Your task to perform on an android device: see sites visited before in the chrome app Image 0: 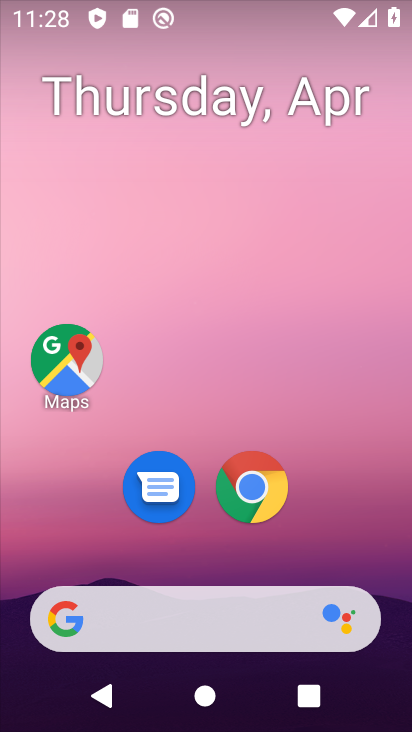
Step 0: click (341, 302)
Your task to perform on an android device: see sites visited before in the chrome app Image 1: 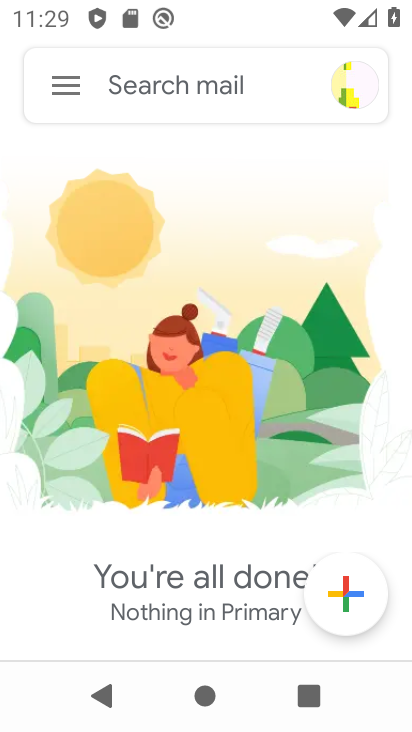
Step 1: press home button
Your task to perform on an android device: see sites visited before in the chrome app Image 2: 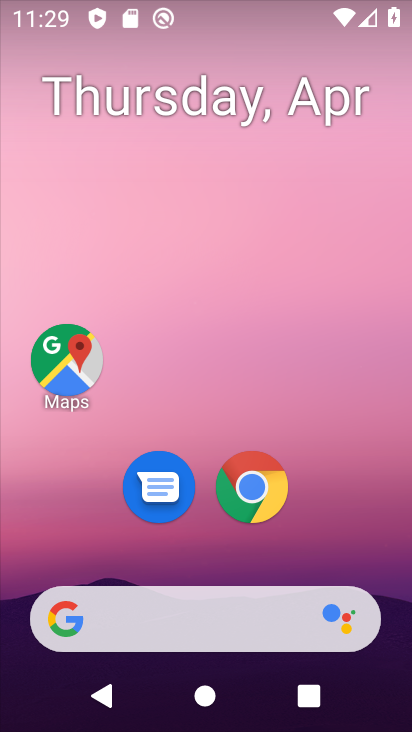
Step 2: drag from (339, 569) to (322, 140)
Your task to perform on an android device: see sites visited before in the chrome app Image 3: 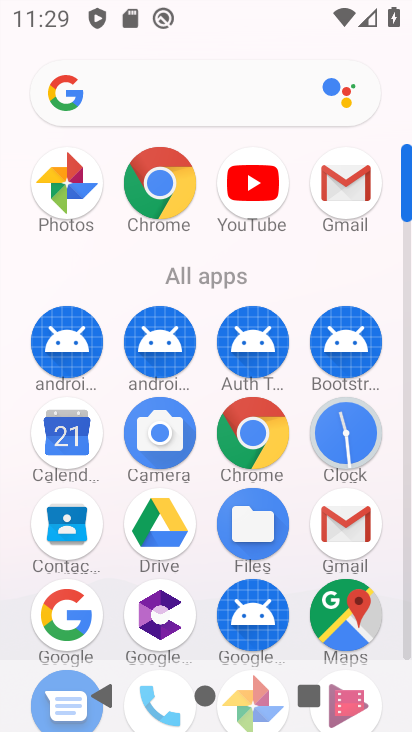
Step 3: click (258, 423)
Your task to perform on an android device: see sites visited before in the chrome app Image 4: 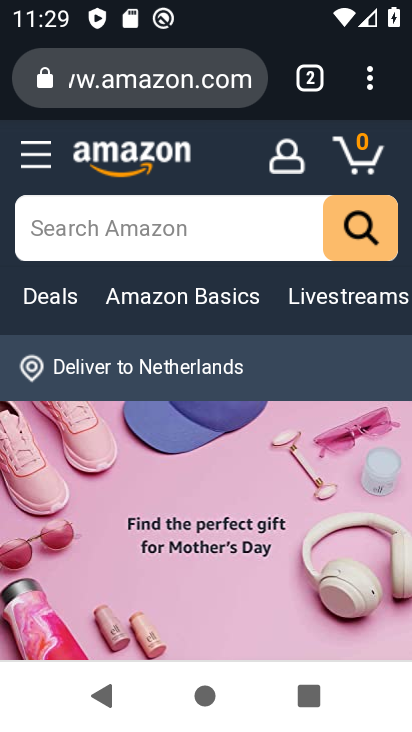
Step 4: click (359, 77)
Your task to perform on an android device: see sites visited before in the chrome app Image 5: 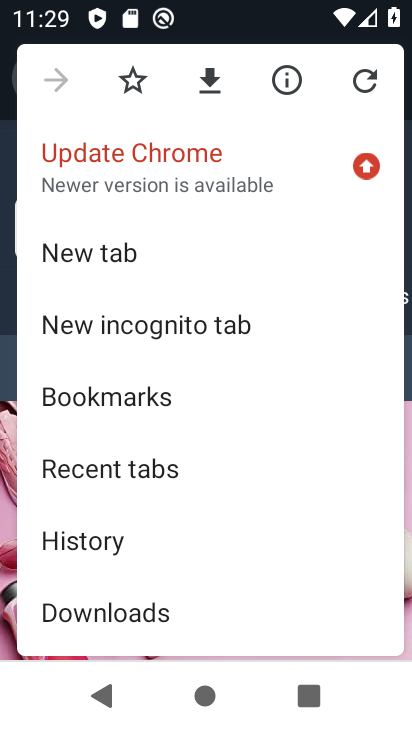
Step 5: click (115, 542)
Your task to perform on an android device: see sites visited before in the chrome app Image 6: 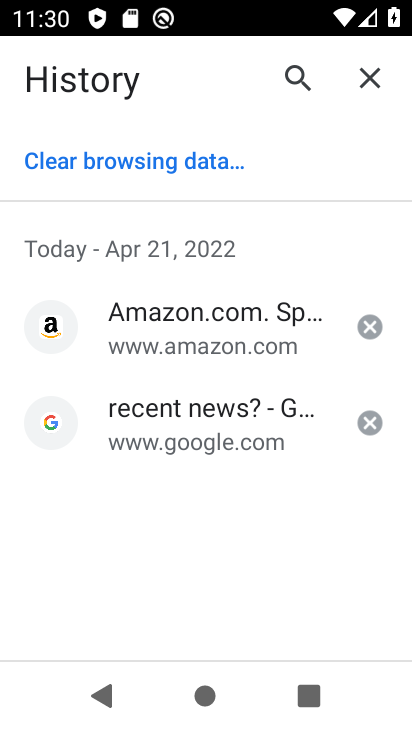
Step 6: task complete